Your task to perform on an android device: Open the calendar app, open the side menu, and click the "Day" option Image 0: 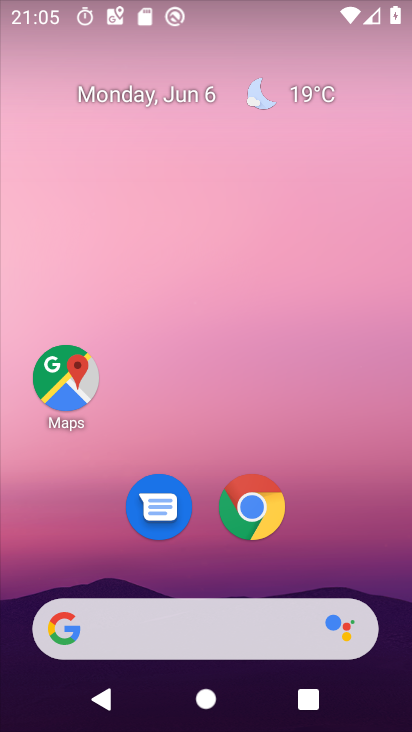
Step 0: press home button
Your task to perform on an android device: Open the calendar app, open the side menu, and click the "Day" option Image 1: 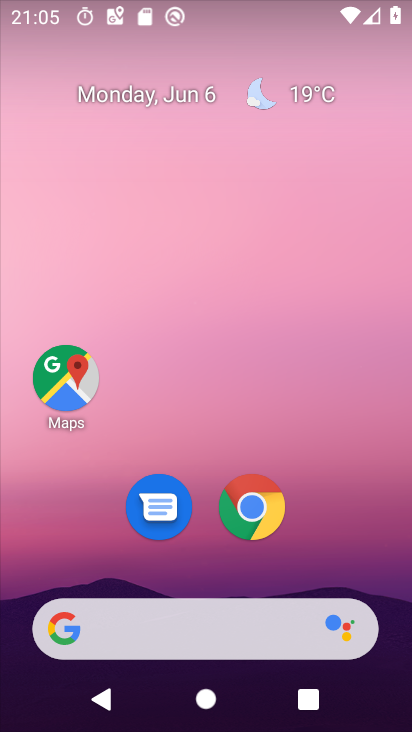
Step 1: drag from (356, 559) to (403, 85)
Your task to perform on an android device: Open the calendar app, open the side menu, and click the "Day" option Image 2: 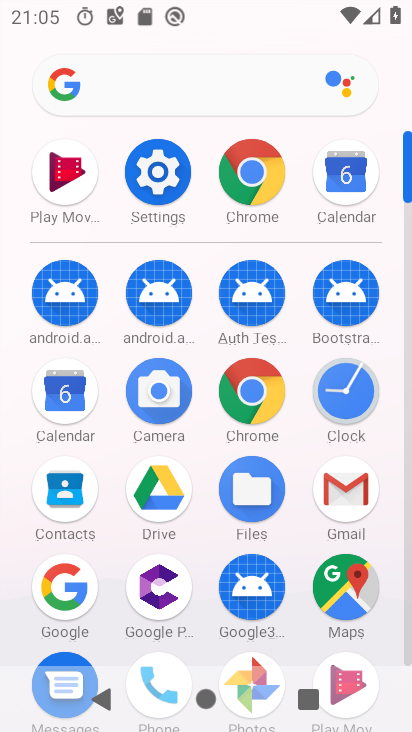
Step 2: click (362, 194)
Your task to perform on an android device: Open the calendar app, open the side menu, and click the "Day" option Image 3: 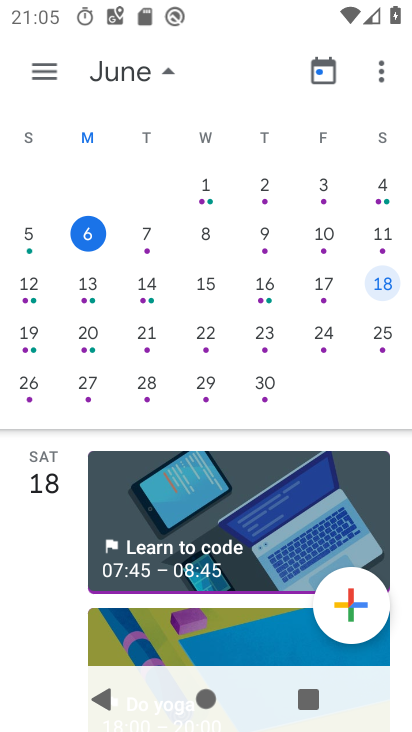
Step 3: click (44, 86)
Your task to perform on an android device: Open the calendar app, open the side menu, and click the "Day" option Image 4: 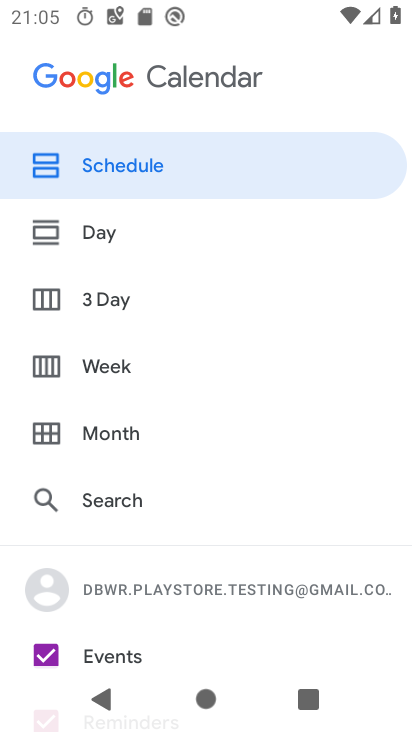
Step 4: click (80, 244)
Your task to perform on an android device: Open the calendar app, open the side menu, and click the "Day" option Image 5: 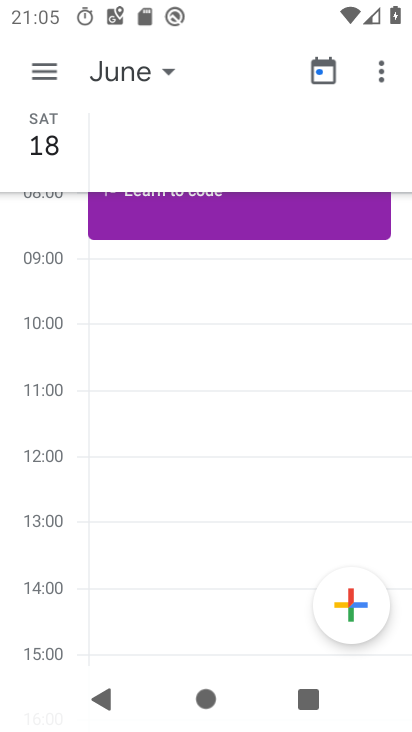
Step 5: task complete